Your task to perform on an android device: open app "Messenger Lite" (install if not already installed) Image 0: 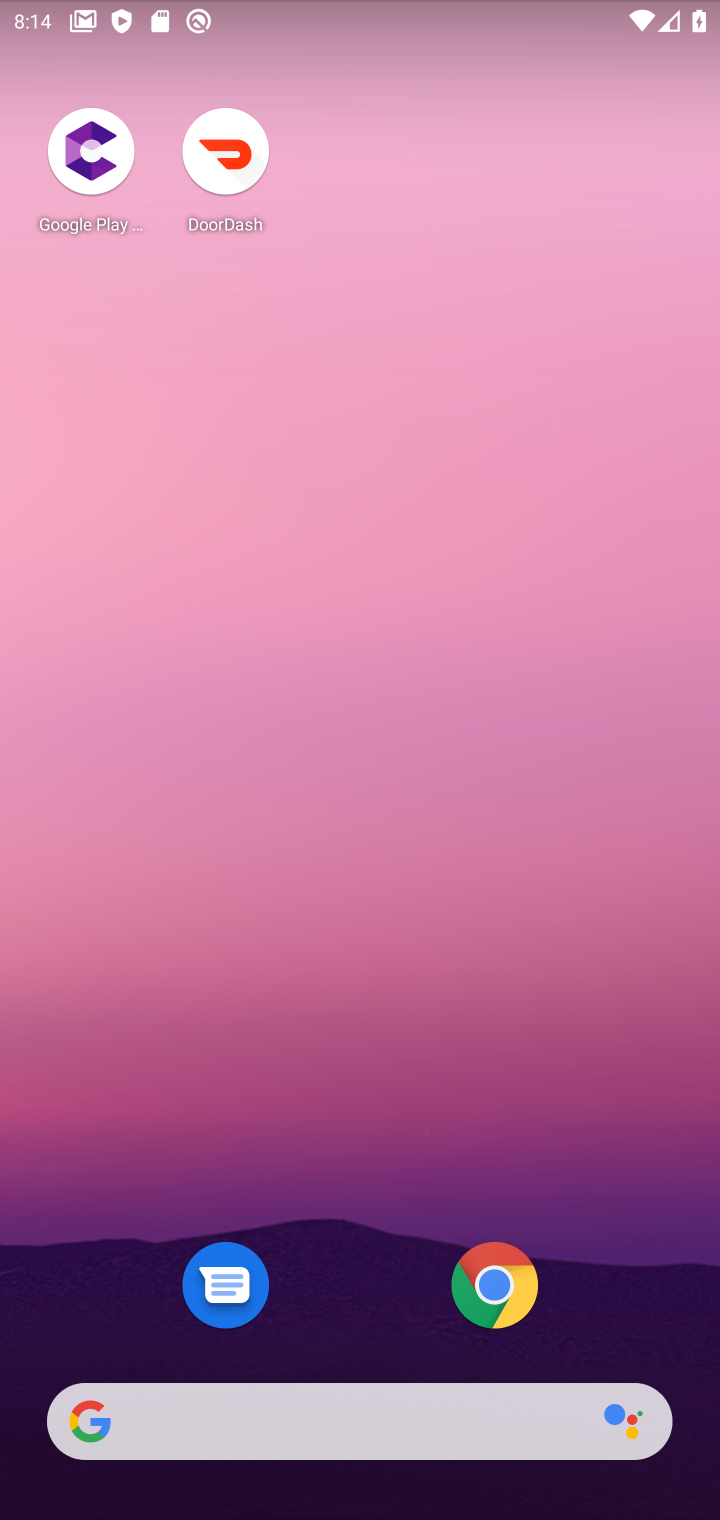
Step 0: drag from (303, 1405) to (399, 50)
Your task to perform on an android device: open app "Messenger Lite" (install if not already installed) Image 1: 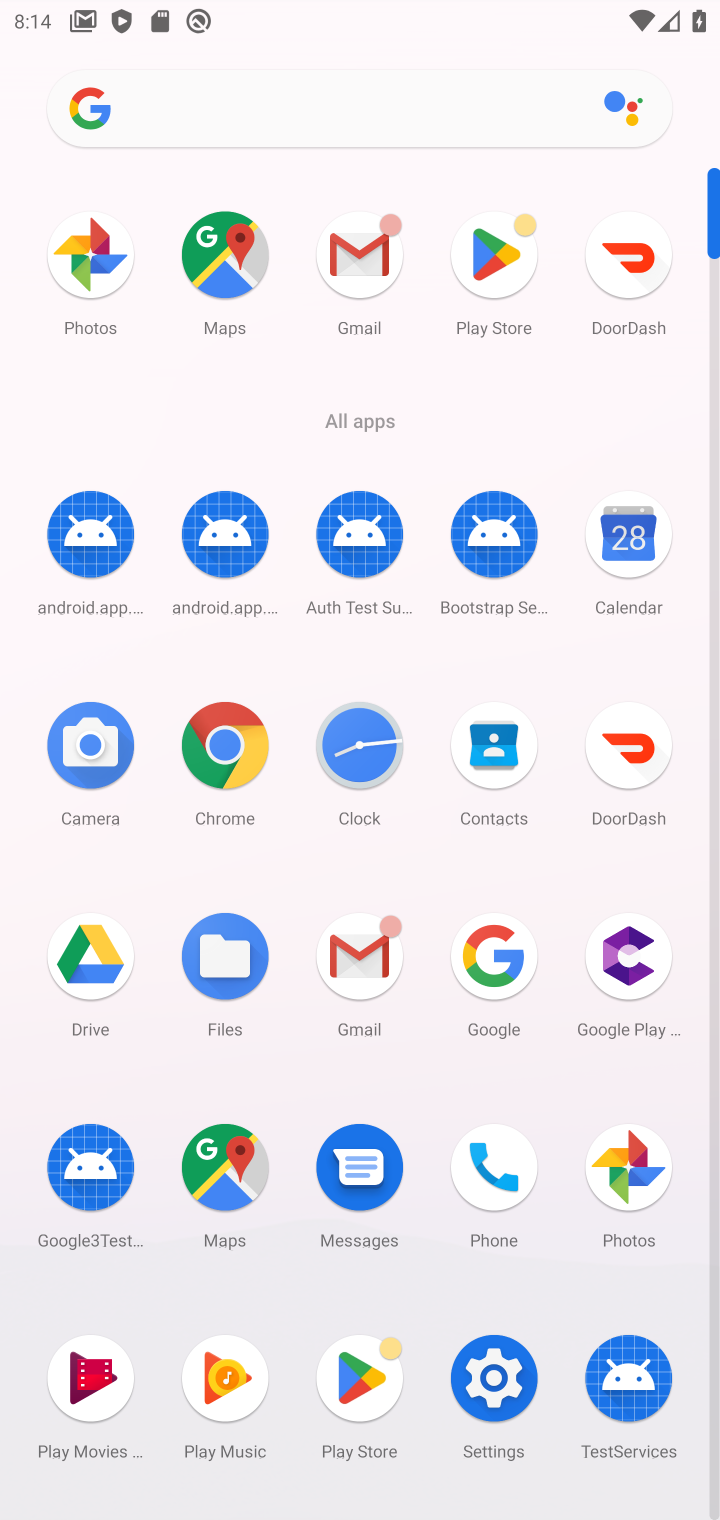
Step 1: click (349, 1389)
Your task to perform on an android device: open app "Messenger Lite" (install if not already installed) Image 2: 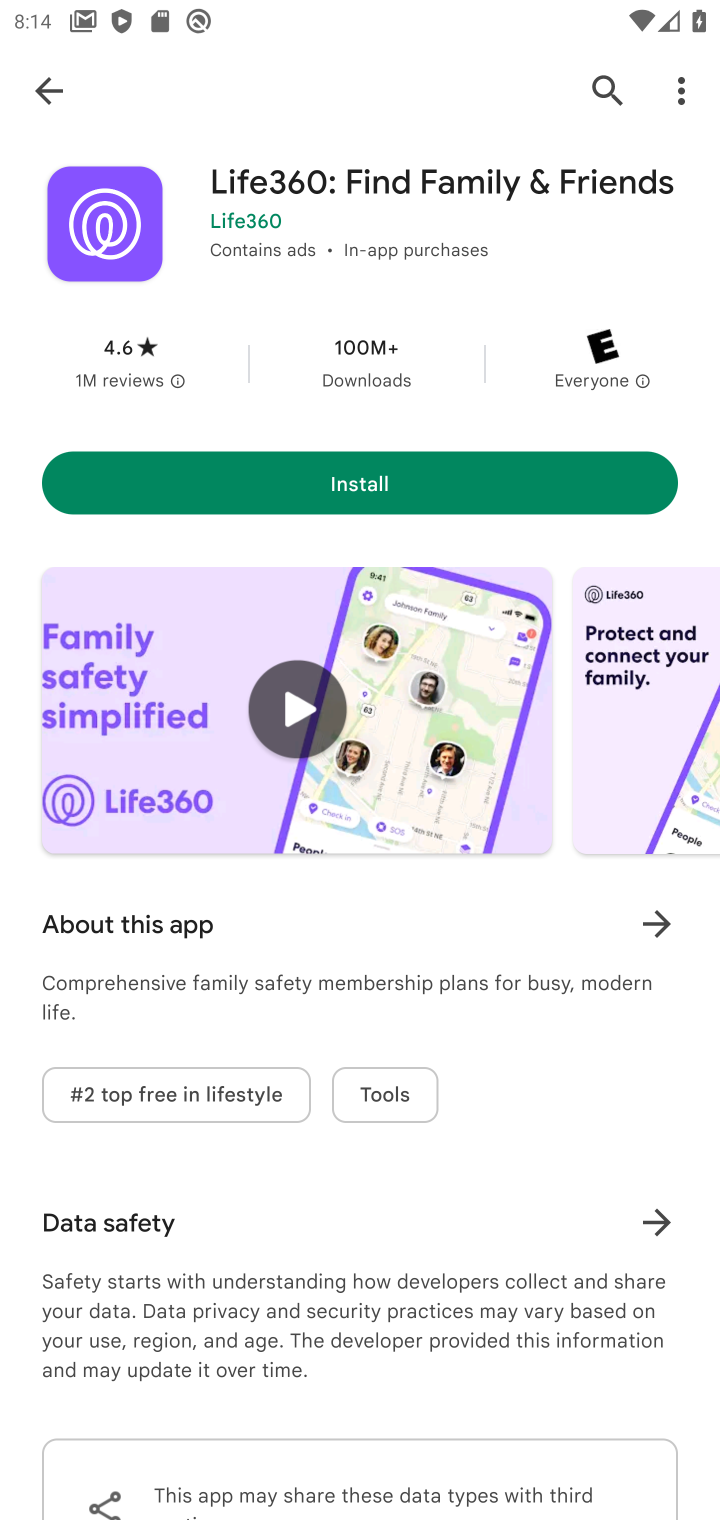
Step 2: click (617, 91)
Your task to perform on an android device: open app "Messenger Lite" (install if not already installed) Image 3: 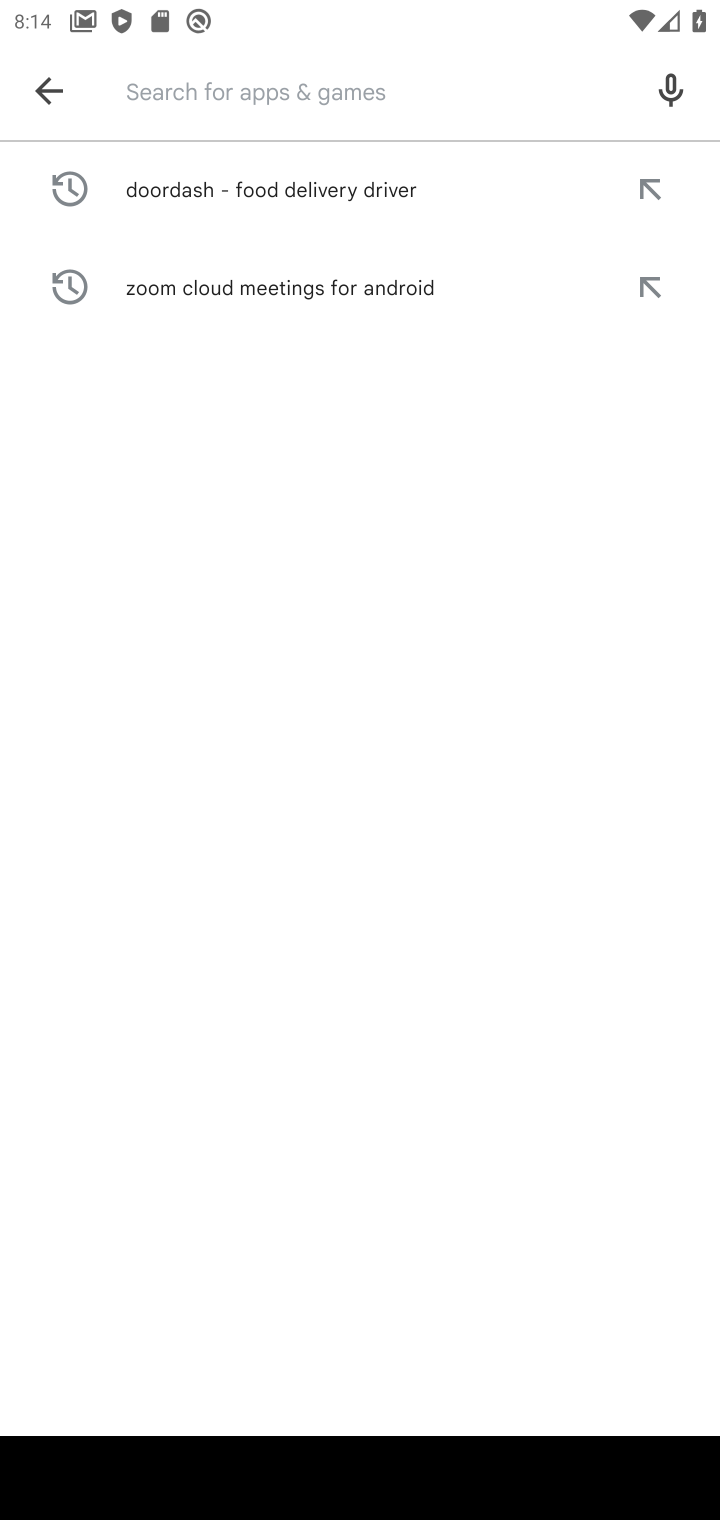
Step 3: type "Messenger Lite"
Your task to perform on an android device: open app "Messenger Lite" (install if not already installed) Image 4: 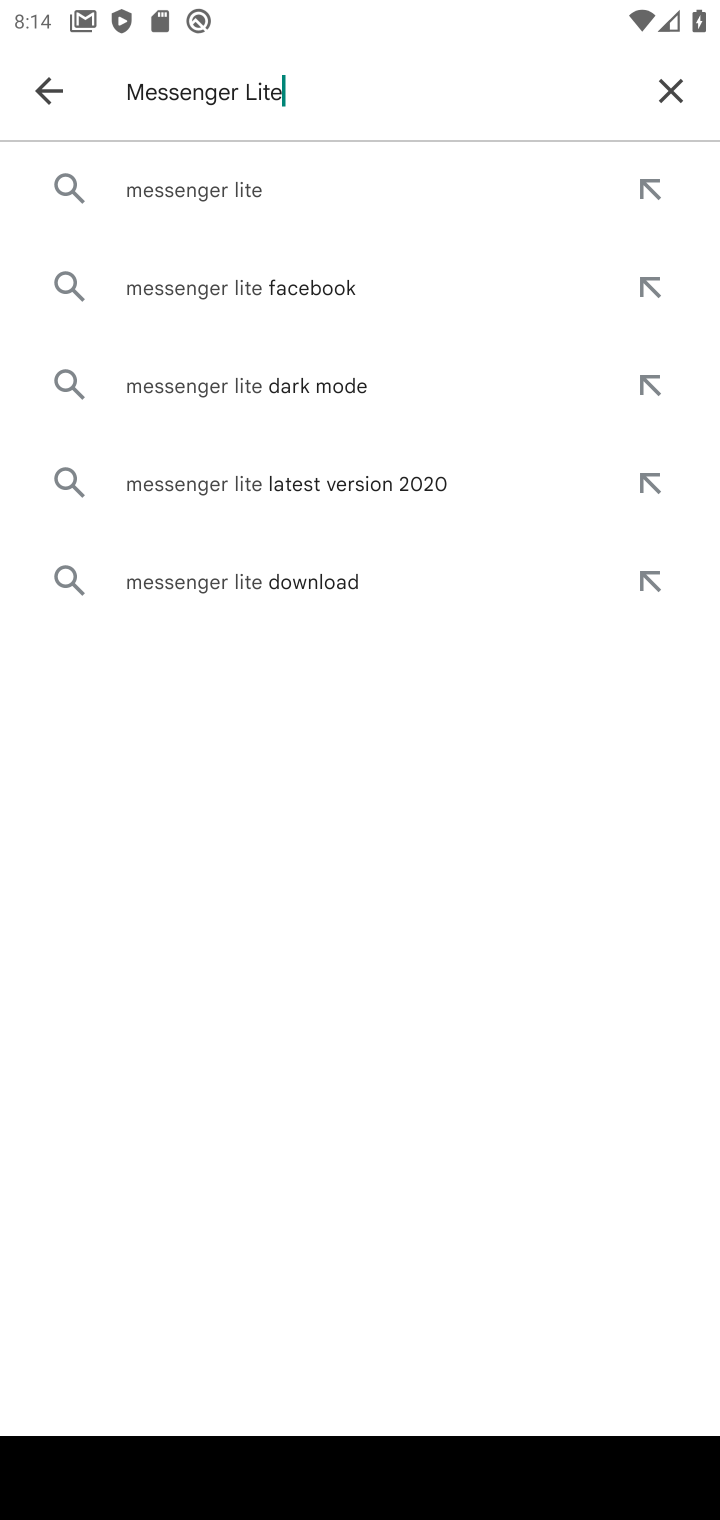
Step 4: click (177, 191)
Your task to perform on an android device: open app "Messenger Lite" (install if not already installed) Image 5: 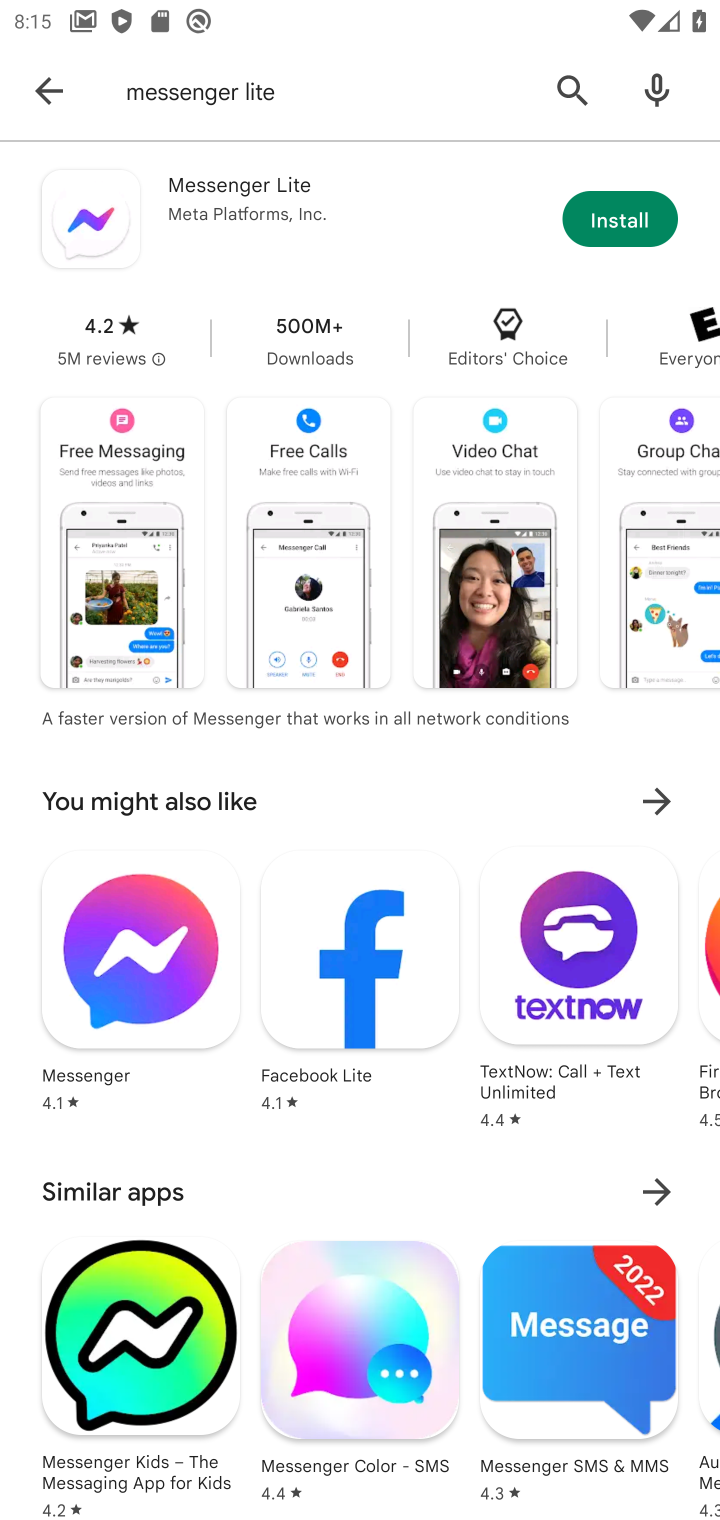
Step 5: click (635, 197)
Your task to perform on an android device: open app "Messenger Lite" (install if not already installed) Image 6: 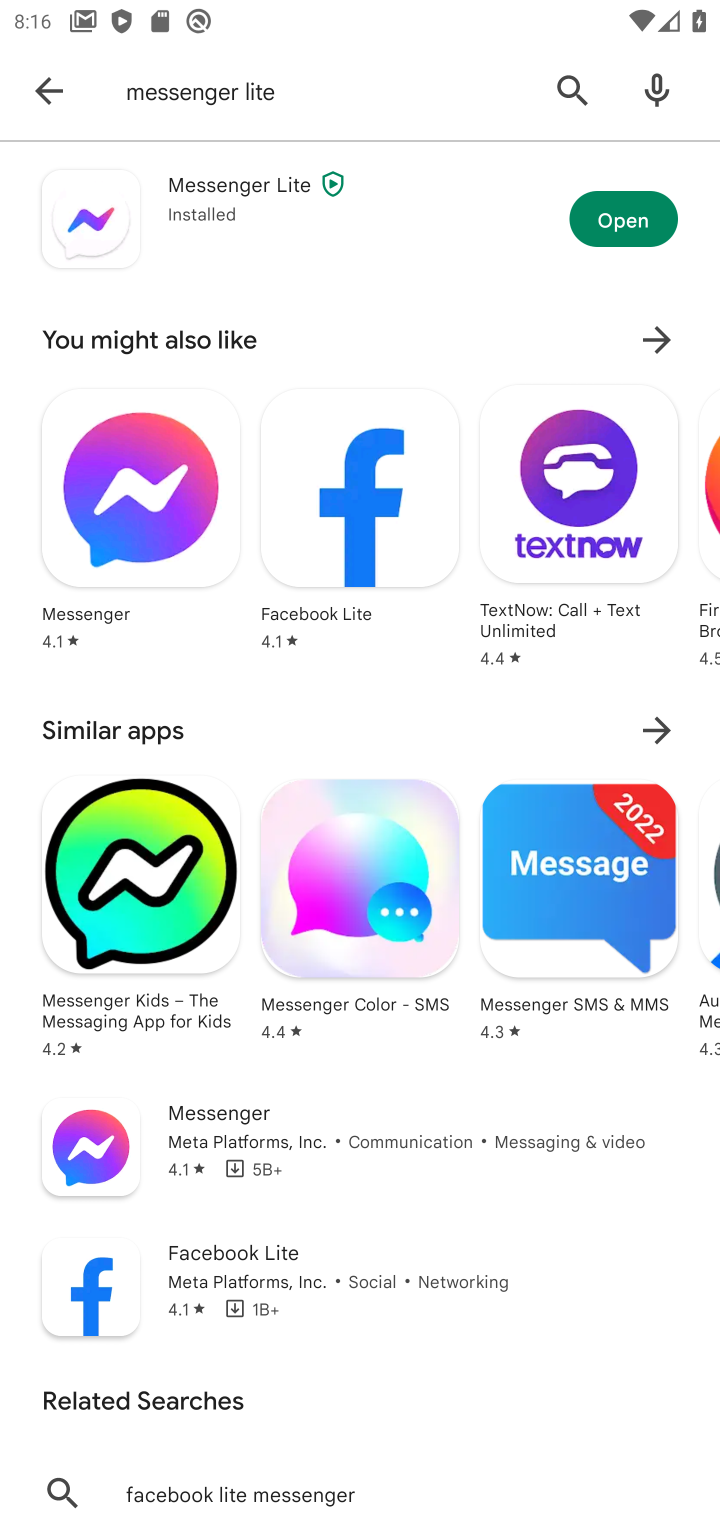
Step 6: click (630, 223)
Your task to perform on an android device: open app "Messenger Lite" (install if not already installed) Image 7: 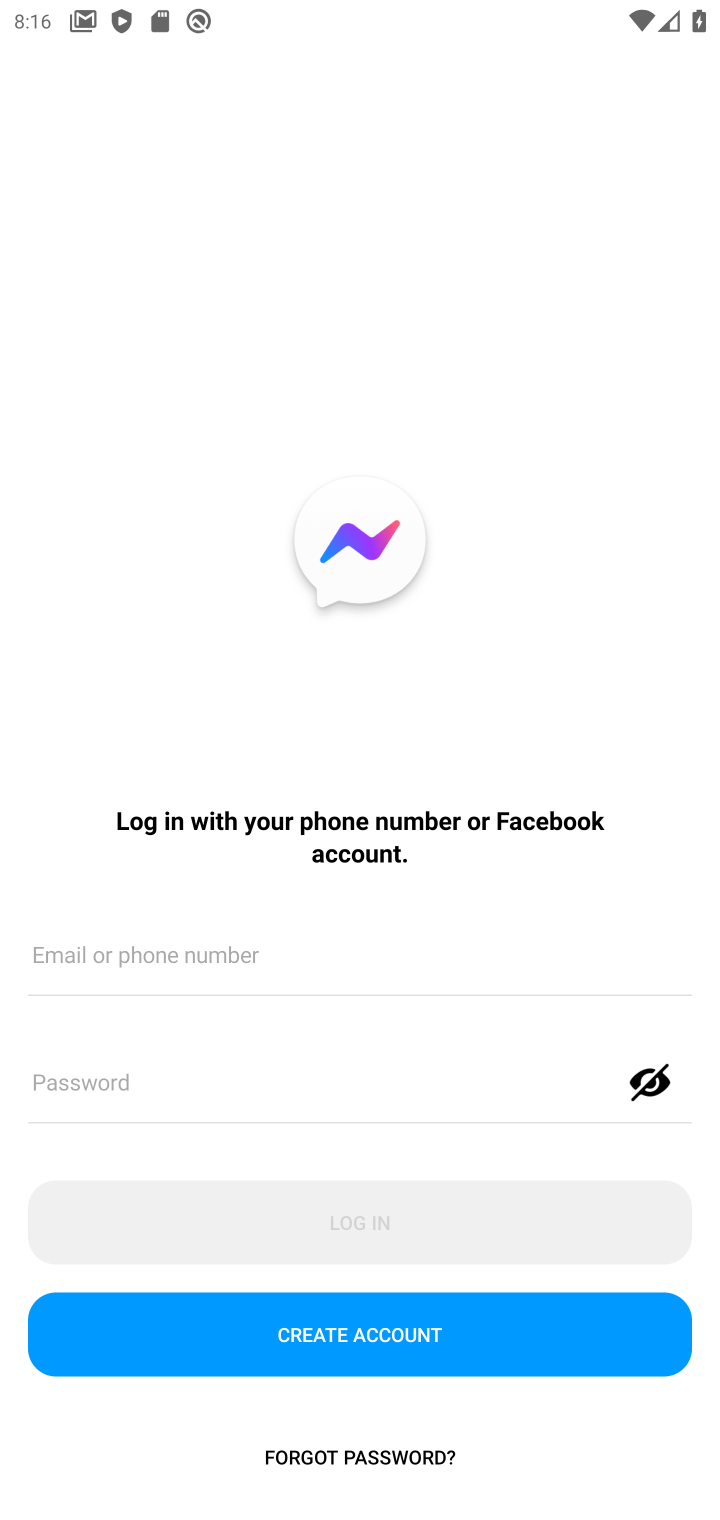
Step 7: task complete